Your task to perform on an android device: Go to calendar. Show me events next week Image 0: 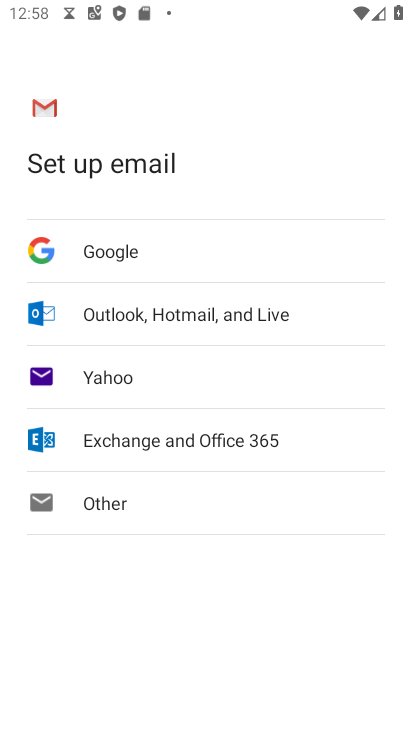
Step 0: press home button
Your task to perform on an android device: Go to calendar. Show me events next week Image 1: 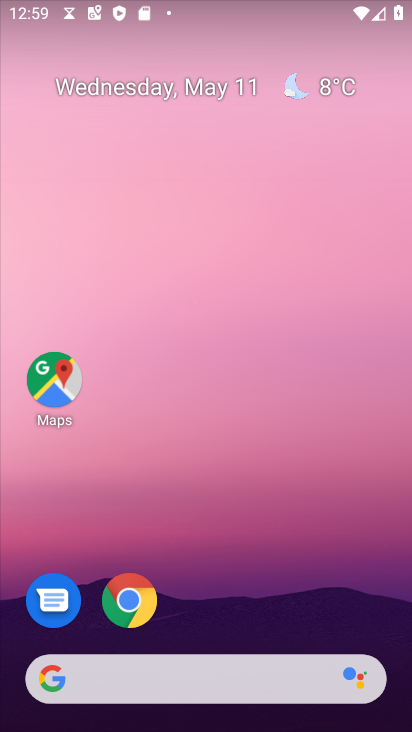
Step 1: drag from (264, 520) to (214, 57)
Your task to perform on an android device: Go to calendar. Show me events next week Image 2: 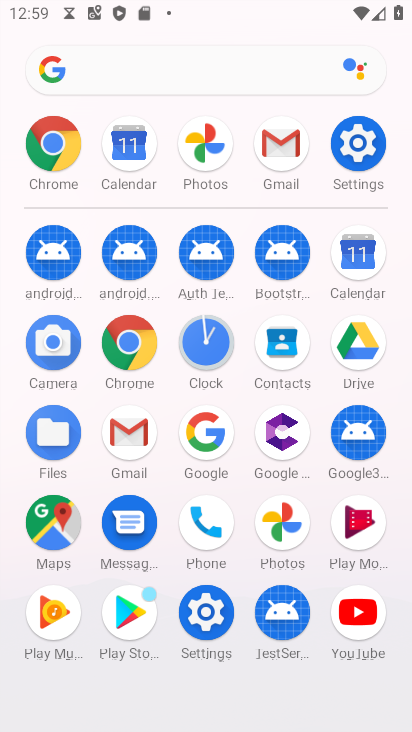
Step 2: click (363, 257)
Your task to perform on an android device: Go to calendar. Show me events next week Image 3: 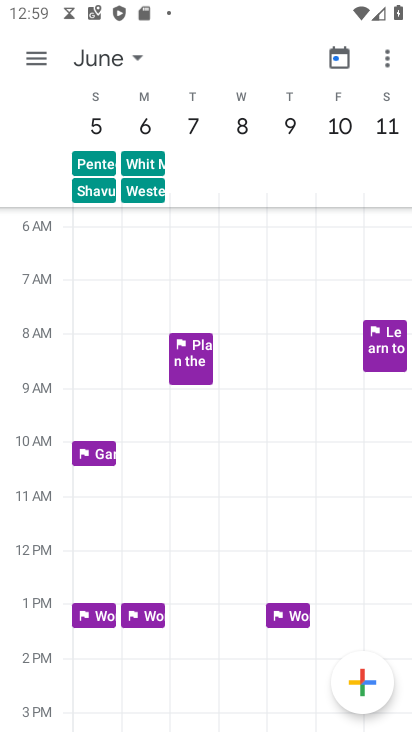
Step 3: click (121, 61)
Your task to perform on an android device: Go to calendar. Show me events next week Image 4: 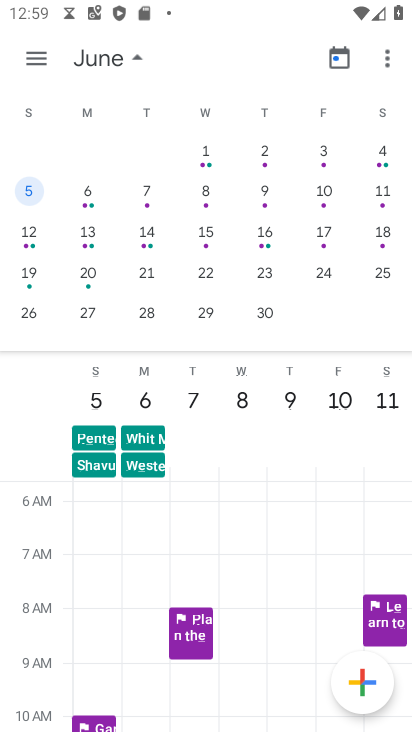
Step 4: drag from (46, 241) to (402, 242)
Your task to perform on an android device: Go to calendar. Show me events next week Image 5: 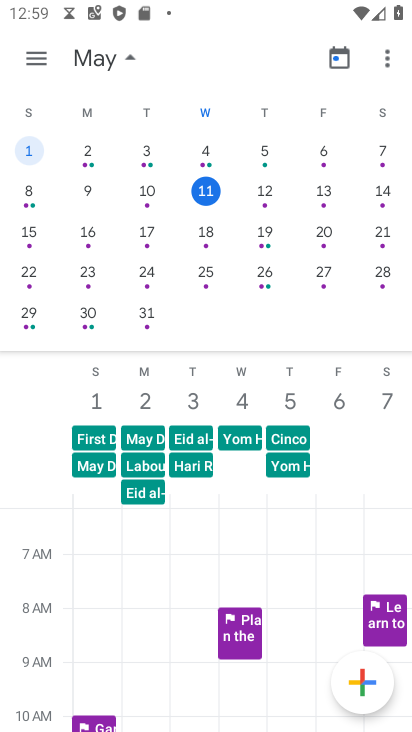
Step 5: click (42, 231)
Your task to perform on an android device: Go to calendar. Show me events next week Image 6: 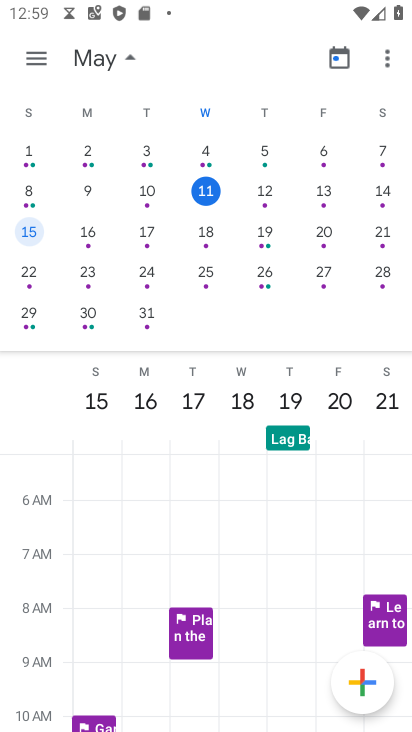
Step 6: task complete